Your task to perform on an android device: Open a new Chrome private window Image 0: 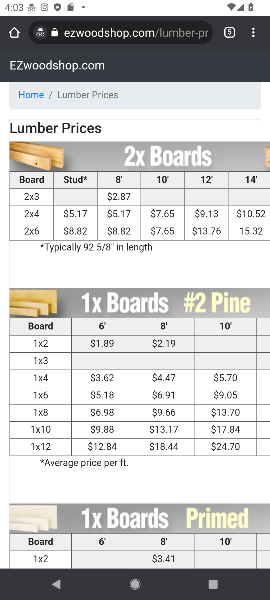
Step 0: click (250, 43)
Your task to perform on an android device: Open a new Chrome private window Image 1: 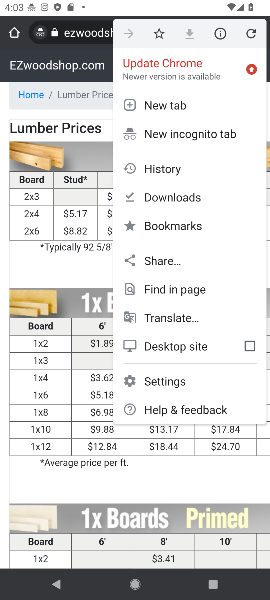
Step 1: click (131, 140)
Your task to perform on an android device: Open a new Chrome private window Image 2: 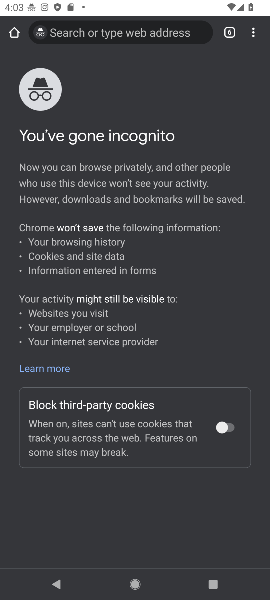
Step 2: task complete